Your task to perform on an android device: What's the weather today? Image 0: 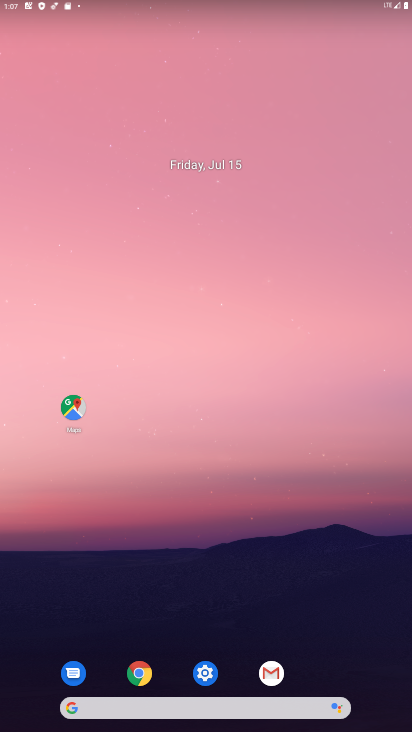
Step 0: click (127, 708)
Your task to perform on an android device: What's the weather today? Image 1: 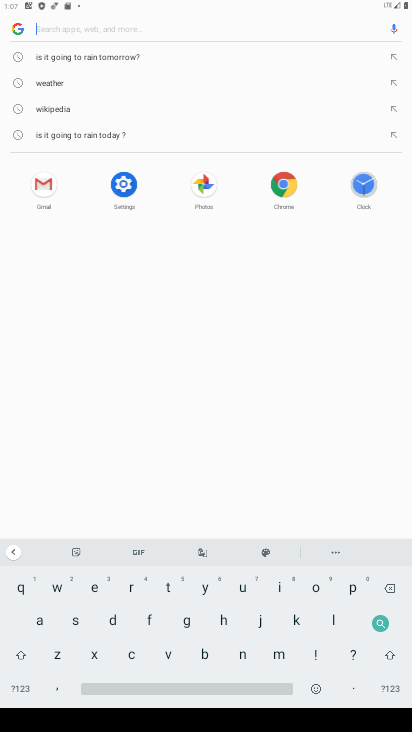
Step 1: click (62, 87)
Your task to perform on an android device: What's the weather today? Image 2: 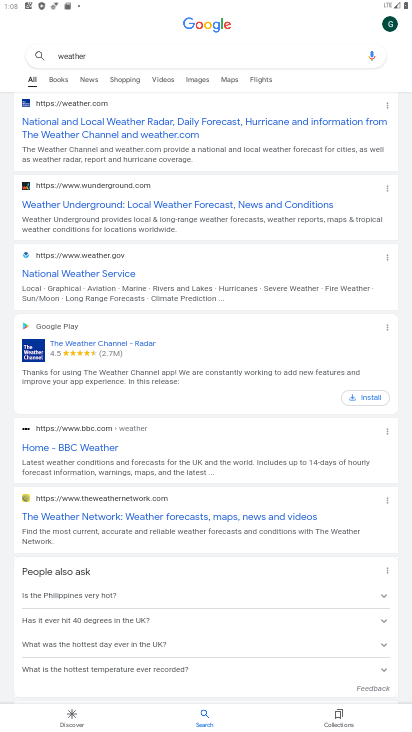
Step 2: click (81, 200)
Your task to perform on an android device: What's the weather today? Image 3: 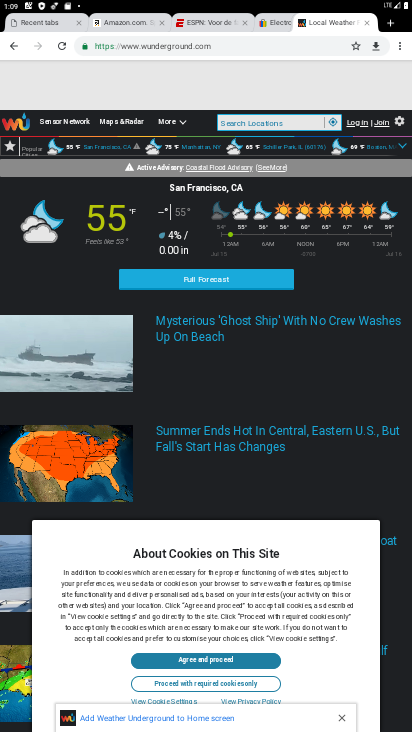
Step 3: click (185, 657)
Your task to perform on an android device: What's the weather today? Image 4: 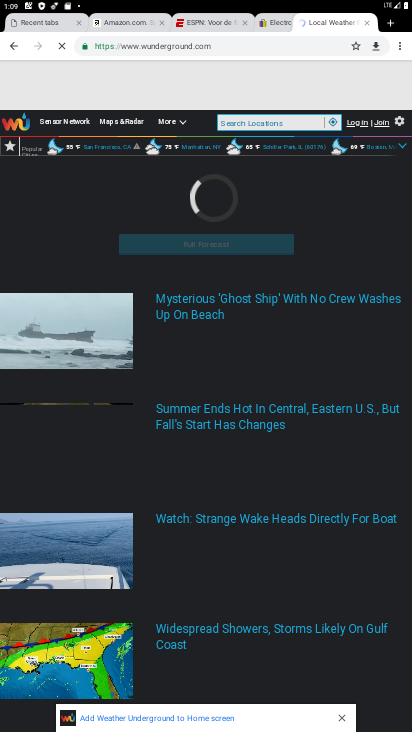
Step 4: task complete